Your task to perform on an android device: open a new tab in the chrome app Image 0: 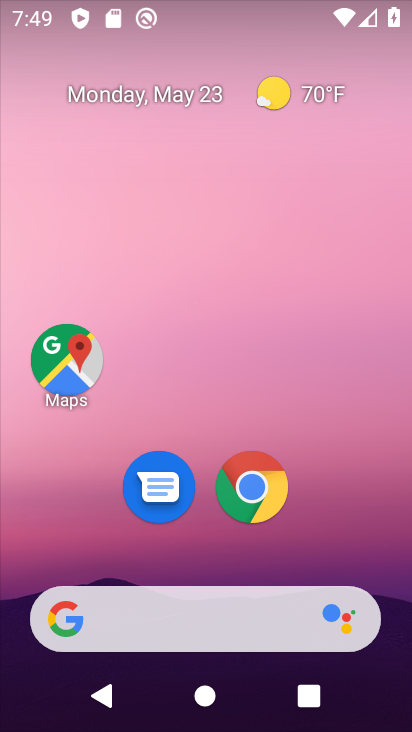
Step 0: click (249, 494)
Your task to perform on an android device: open a new tab in the chrome app Image 1: 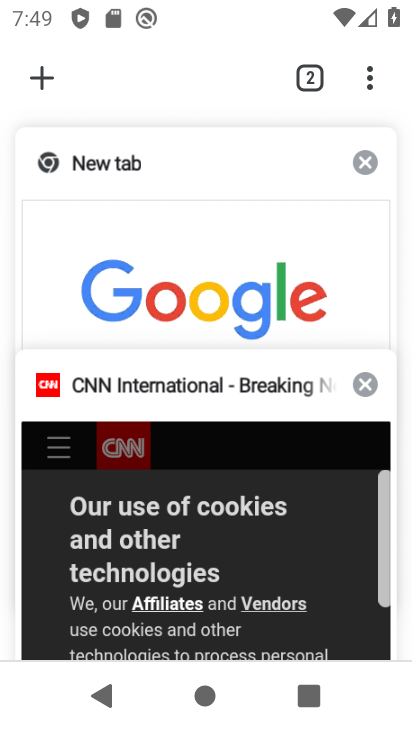
Step 1: click (370, 72)
Your task to perform on an android device: open a new tab in the chrome app Image 2: 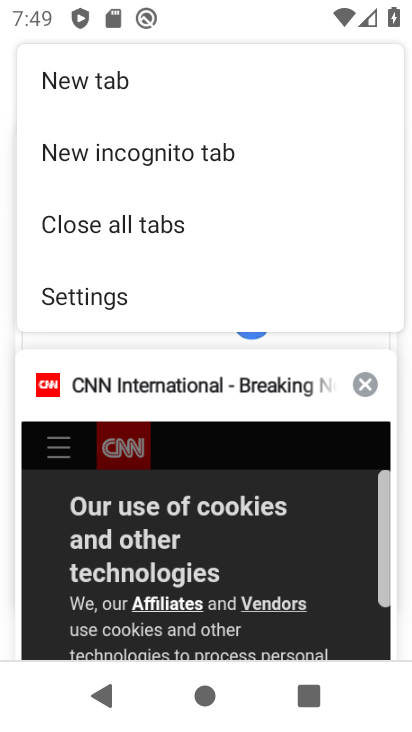
Step 2: click (221, 89)
Your task to perform on an android device: open a new tab in the chrome app Image 3: 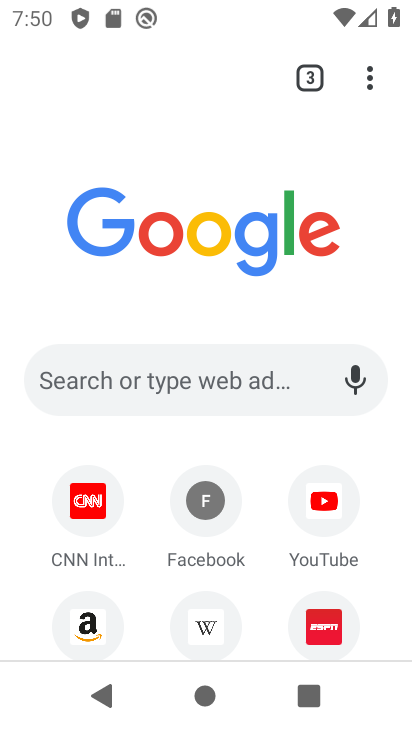
Step 3: task complete